Your task to perform on an android device: empty trash in google photos Image 0: 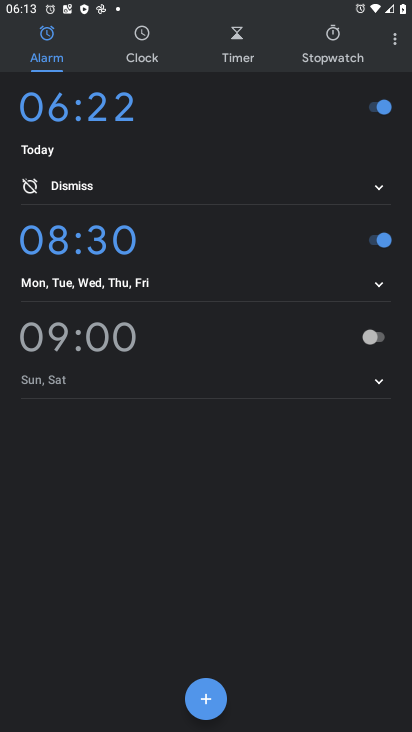
Step 0: press home button
Your task to perform on an android device: empty trash in google photos Image 1: 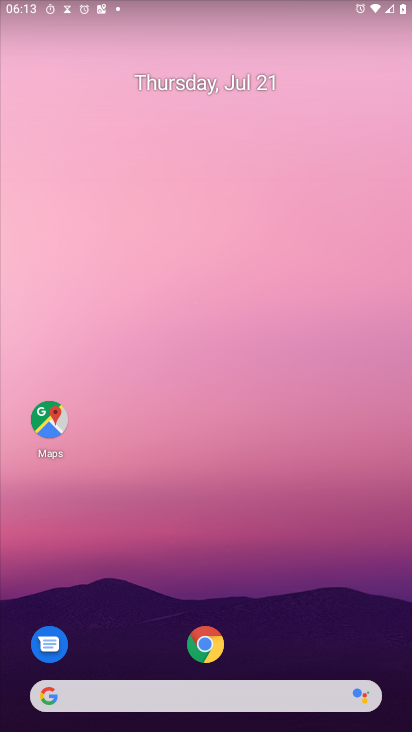
Step 1: drag from (308, 633) to (301, 143)
Your task to perform on an android device: empty trash in google photos Image 2: 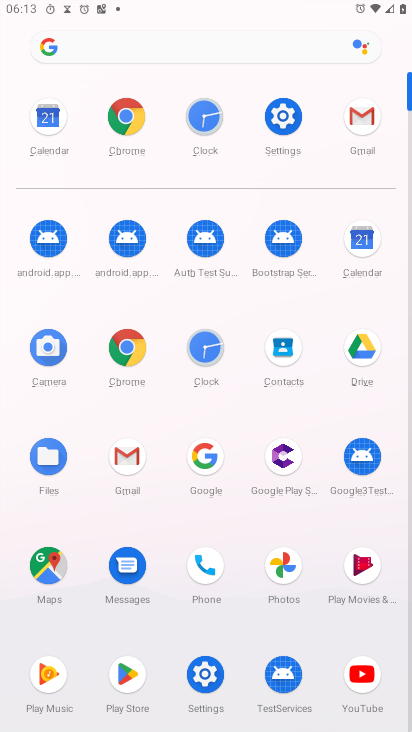
Step 2: click (280, 566)
Your task to perform on an android device: empty trash in google photos Image 3: 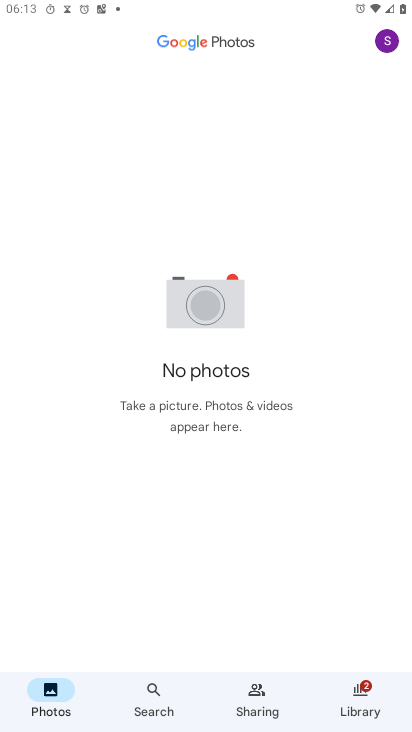
Step 3: click (386, 36)
Your task to perform on an android device: empty trash in google photos Image 4: 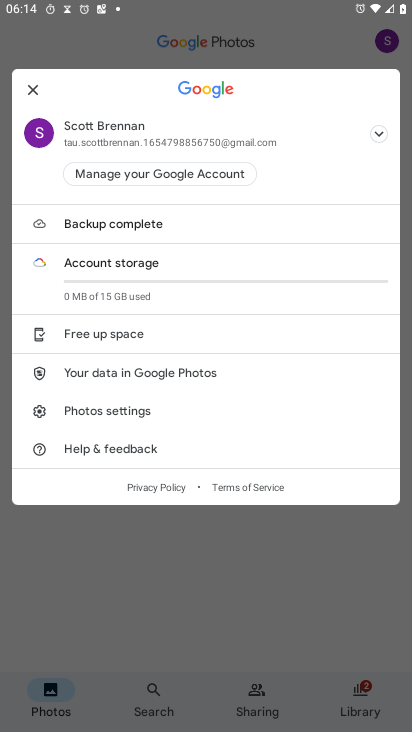
Step 4: click (359, 708)
Your task to perform on an android device: empty trash in google photos Image 5: 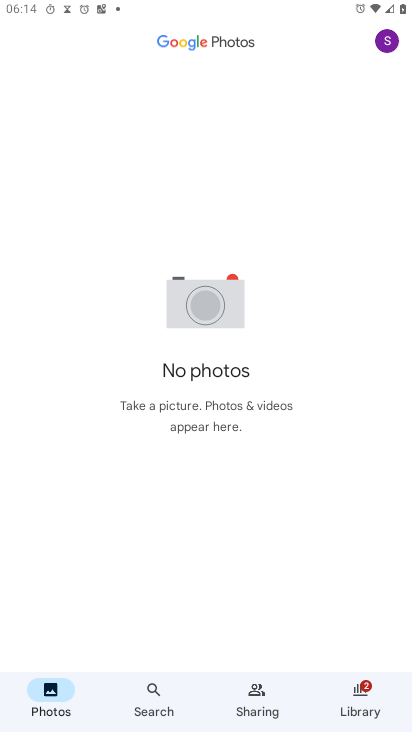
Step 5: click (359, 708)
Your task to perform on an android device: empty trash in google photos Image 6: 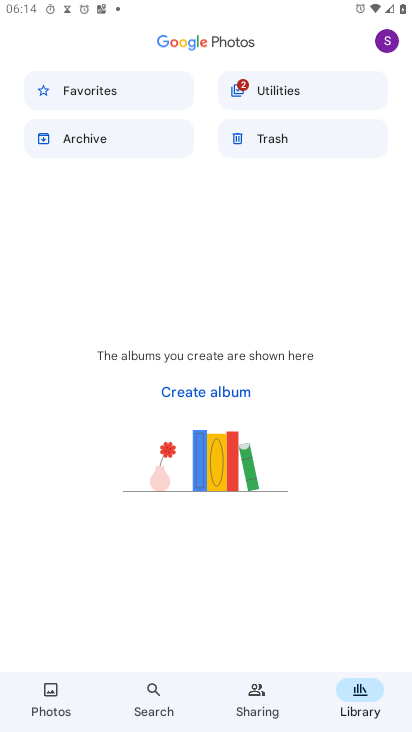
Step 6: click (243, 131)
Your task to perform on an android device: empty trash in google photos Image 7: 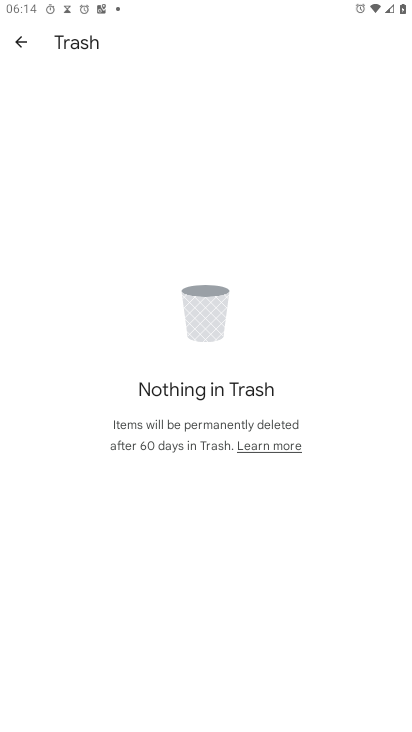
Step 7: task complete